Your task to perform on an android device: Go to settings Image 0: 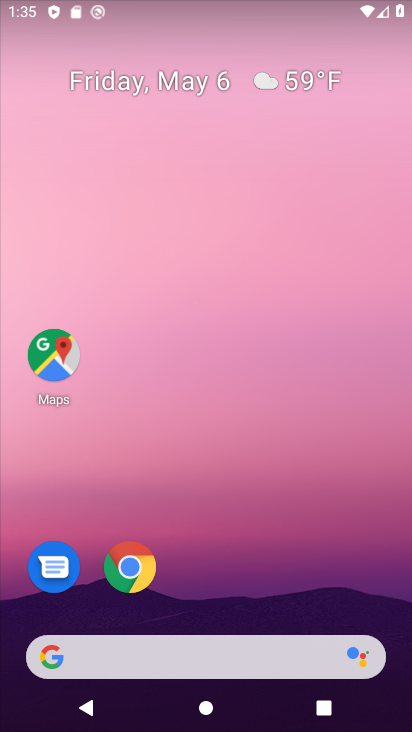
Step 0: drag from (243, 595) to (185, 80)
Your task to perform on an android device: Go to settings Image 1: 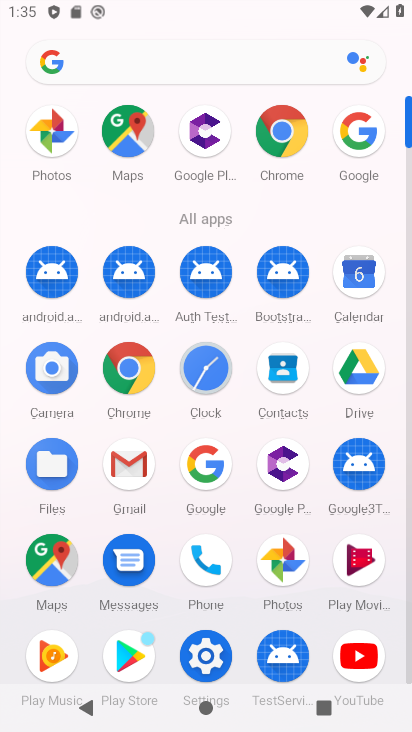
Step 1: click (203, 658)
Your task to perform on an android device: Go to settings Image 2: 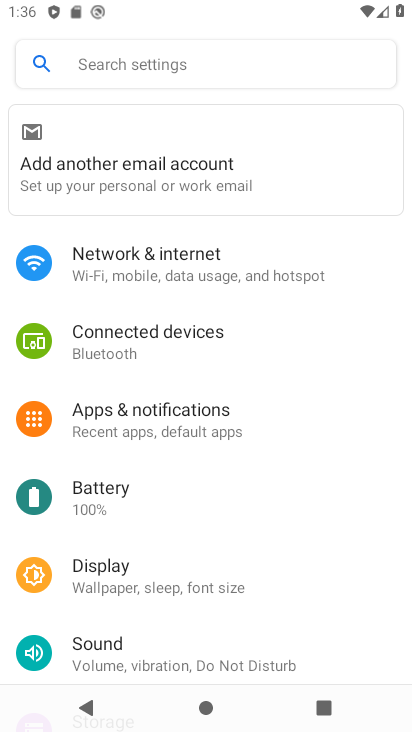
Step 2: task complete